Your task to perform on an android device: What's the weather going to be this weekend? Image 0: 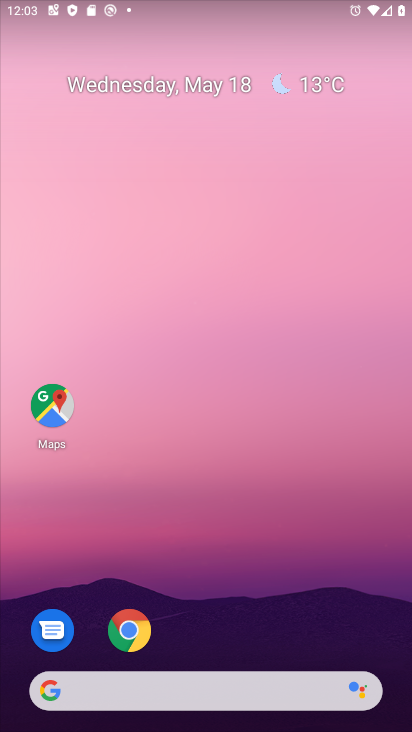
Step 0: click (278, 79)
Your task to perform on an android device: What's the weather going to be this weekend? Image 1: 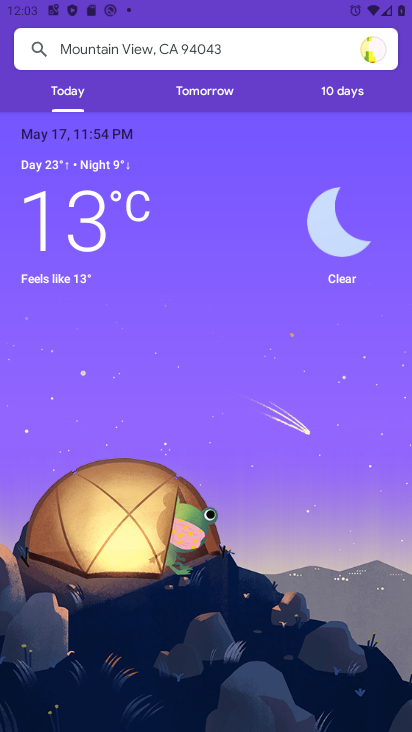
Step 1: click (343, 90)
Your task to perform on an android device: What's the weather going to be this weekend? Image 2: 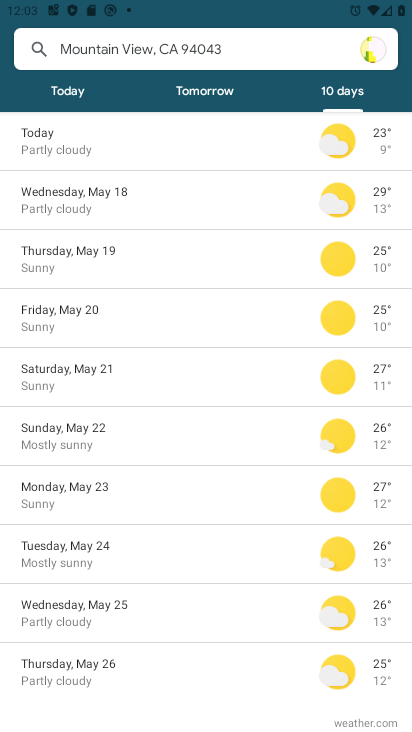
Step 2: click (71, 365)
Your task to perform on an android device: What's the weather going to be this weekend? Image 3: 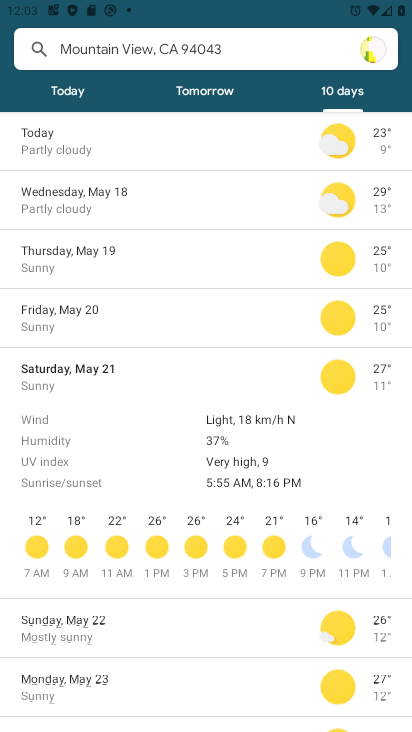
Step 3: task complete